Your task to perform on an android device: Go to location settings Image 0: 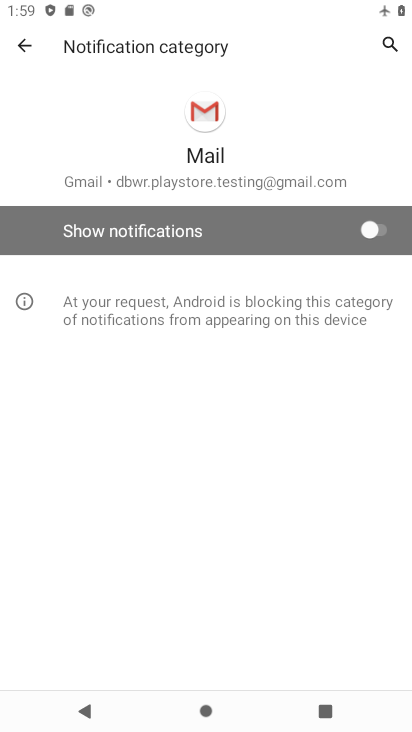
Step 0: press home button
Your task to perform on an android device: Go to location settings Image 1: 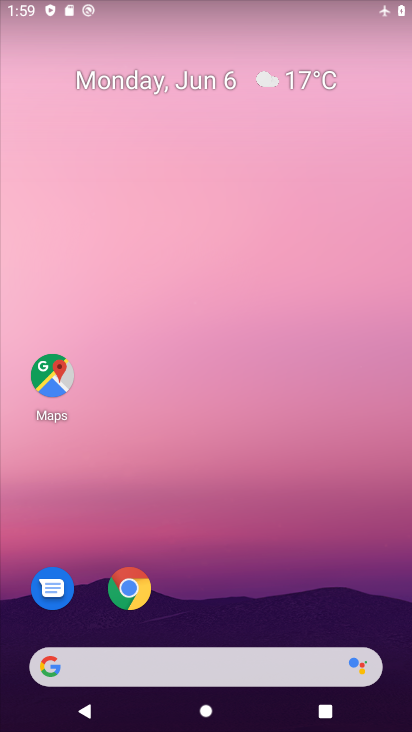
Step 1: drag from (219, 661) to (197, 127)
Your task to perform on an android device: Go to location settings Image 2: 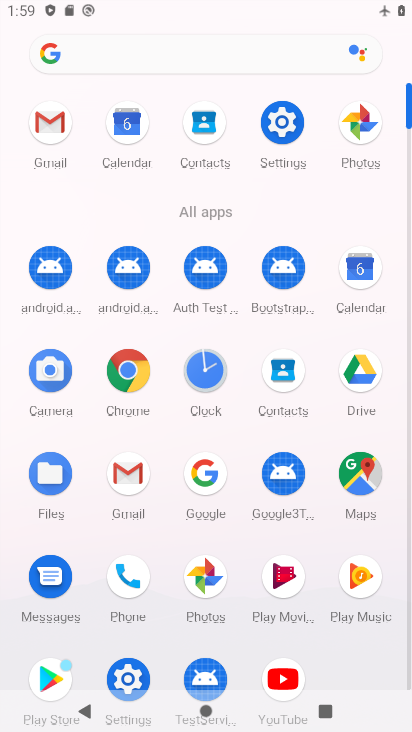
Step 2: click (289, 104)
Your task to perform on an android device: Go to location settings Image 3: 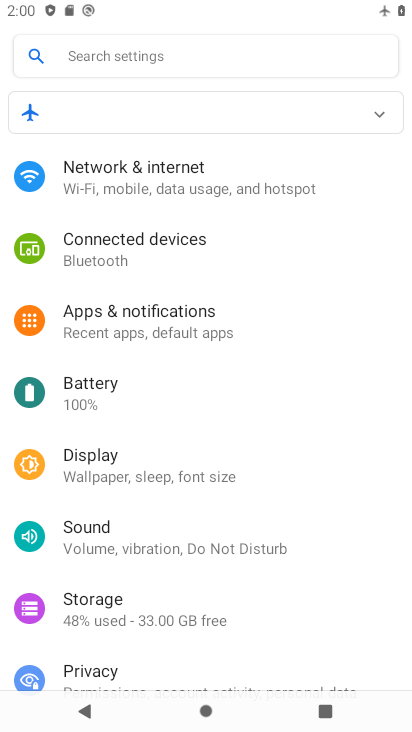
Step 3: drag from (133, 601) to (139, 256)
Your task to perform on an android device: Go to location settings Image 4: 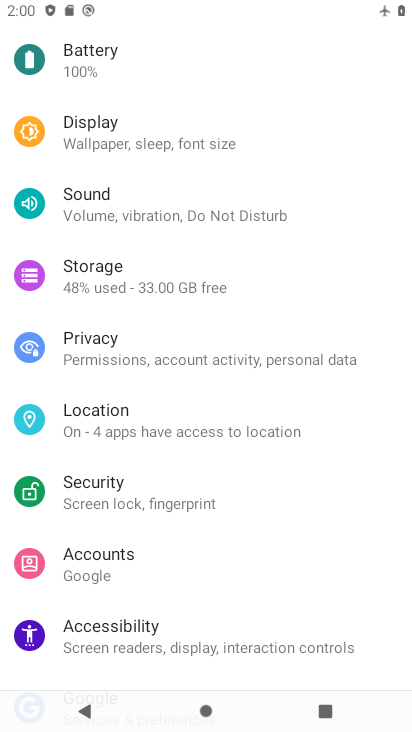
Step 4: click (138, 412)
Your task to perform on an android device: Go to location settings Image 5: 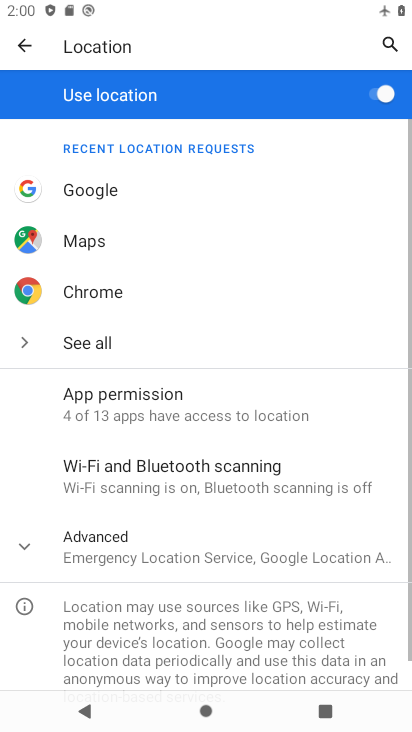
Step 5: task complete